Your task to perform on an android device: Go to Android settings Image 0: 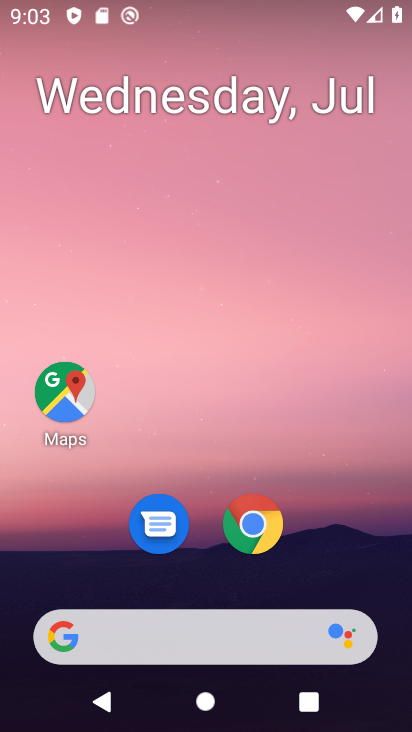
Step 0: press home button
Your task to perform on an android device: Go to Android settings Image 1: 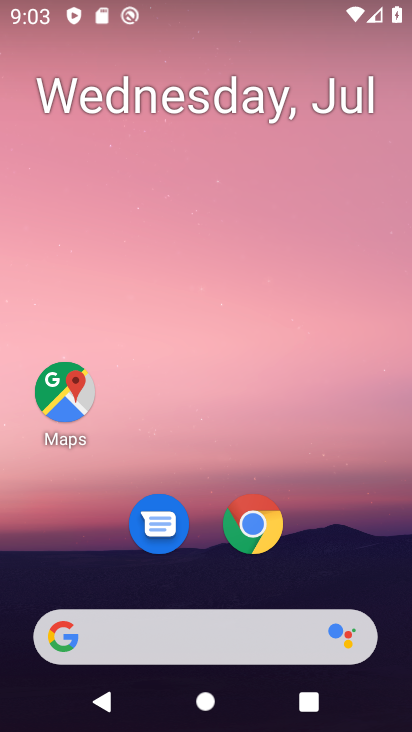
Step 1: drag from (214, 635) to (272, 84)
Your task to perform on an android device: Go to Android settings Image 2: 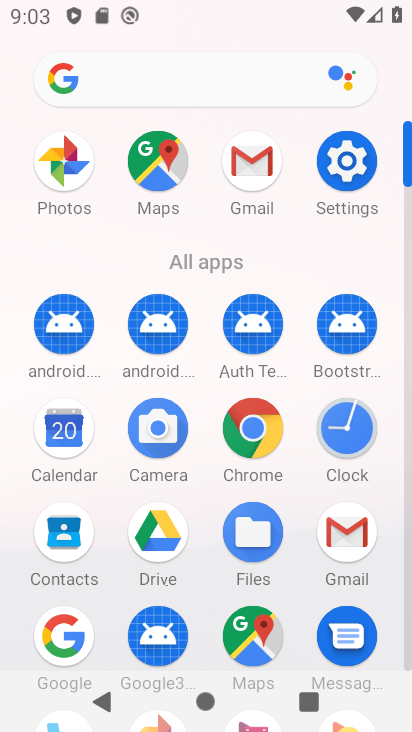
Step 2: click (350, 145)
Your task to perform on an android device: Go to Android settings Image 3: 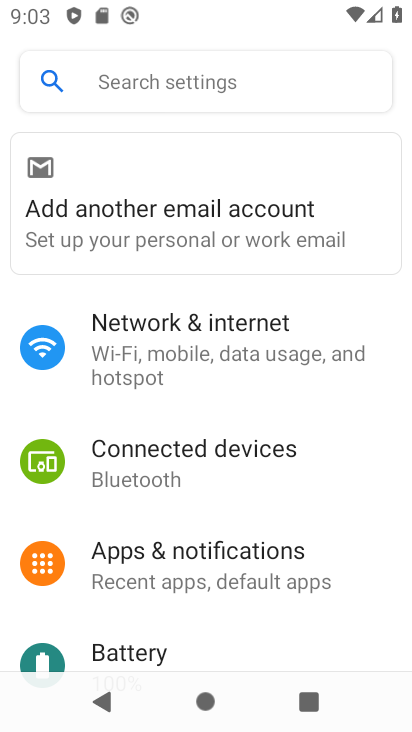
Step 3: task complete